Your task to perform on an android device: What's the weather? Image 0: 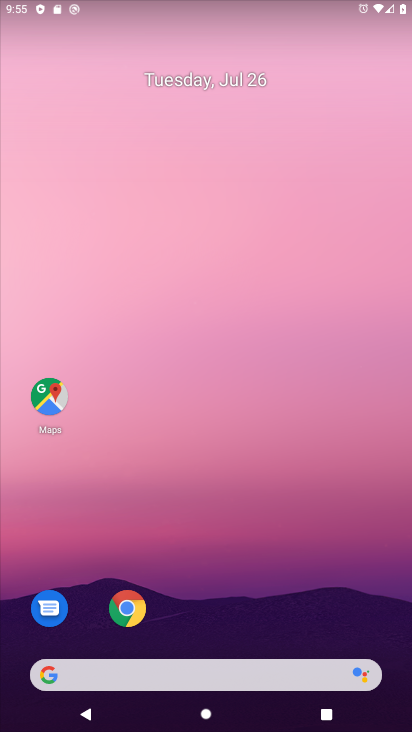
Step 0: drag from (236, 716) to (246, 115)
Your task to perform on an android device: What's the weather? Image 1: 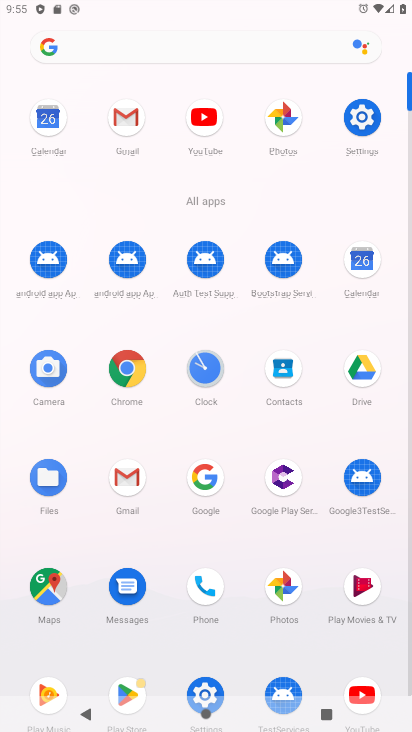
Step 1: click (201, 477)
Your task to perform on an android device: What's the weather? Image 2: 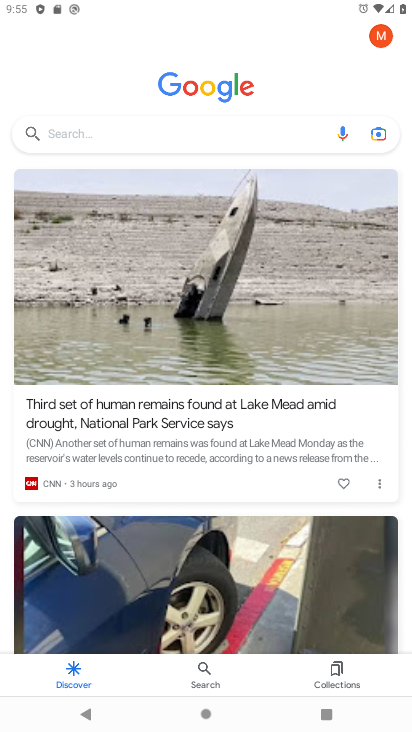
Step 2: click (192, 134)
Your task to perform on an android device: What's the weather? Image 3: 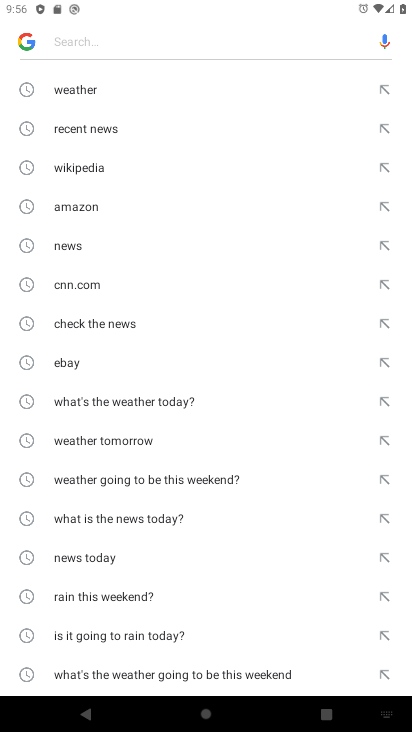
Step 3: click (69, 91)
Your task to perform on an android device: What's the weather? Image 4: 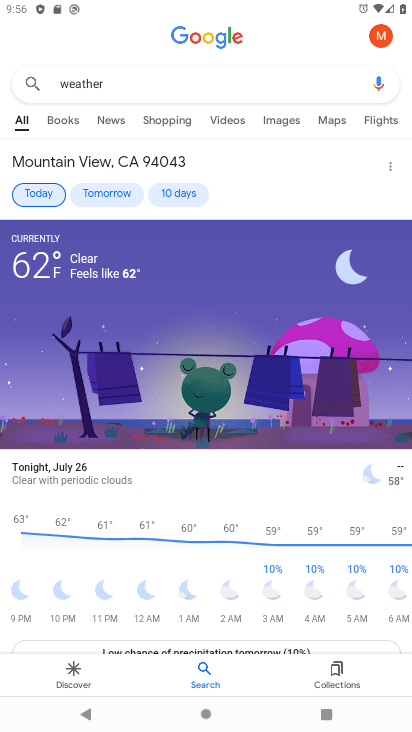
Step 4: task complete